Your task to perform on an android device: turn pop-ups off in chrome Image 0: 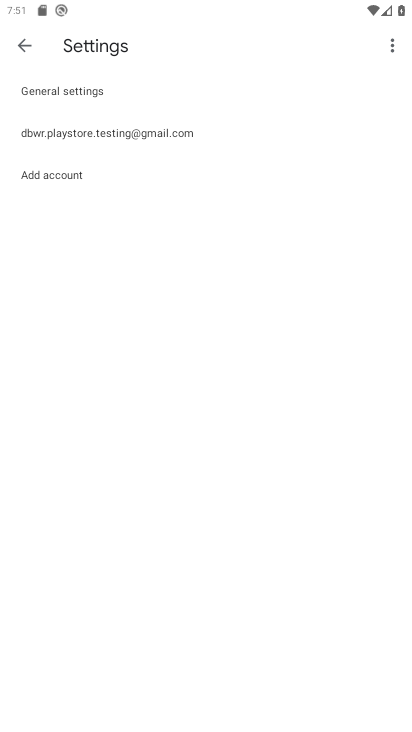
Step 0: press home button
Your task to perform on an android device: turn pop-ups off in chrome Image 1: 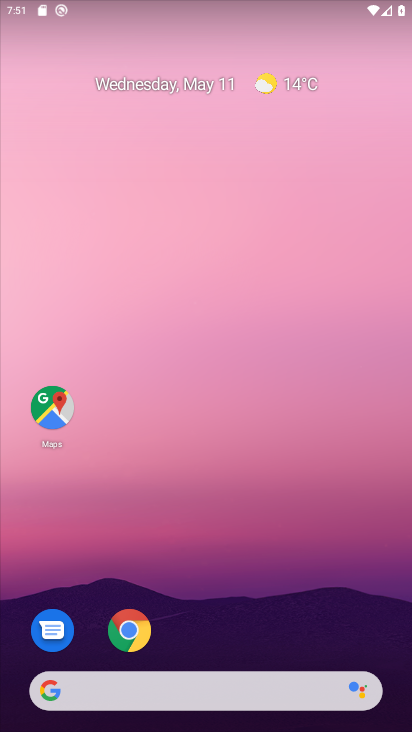
Step 1: click (134, 628)
Your task to perform on an android device: turn pop-ups off in chrome Image 2: 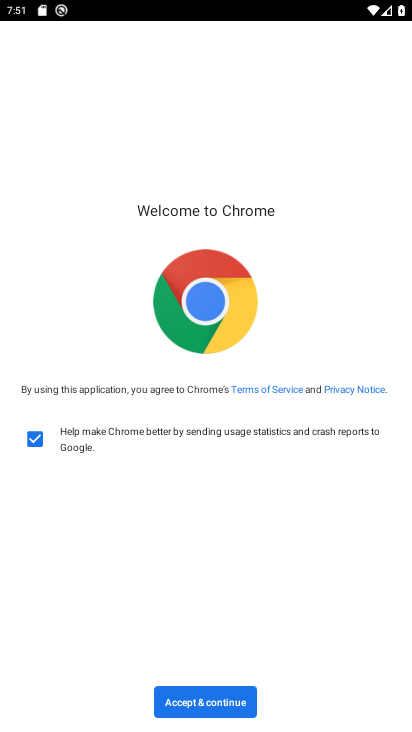
Step 2: click (226, 693)
Your task to perform on an android device: turn pop-ups off in chrome Image 3: 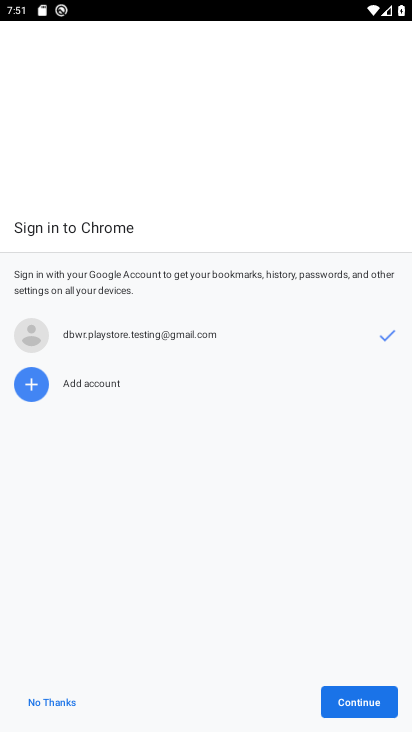
Step 3: click (375, 699)
Your task to perform on an android device: turn pop-ups off in chrome Image 4: 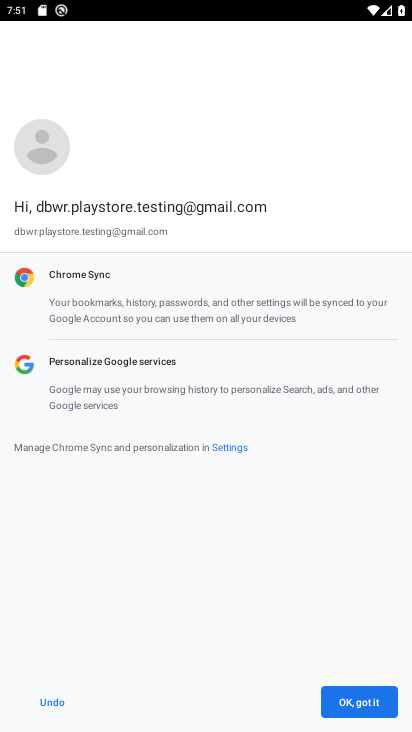
Step 4: click (53, 706)
Your task to perform on an android device: turn pop-ups off in chrome Image 5: 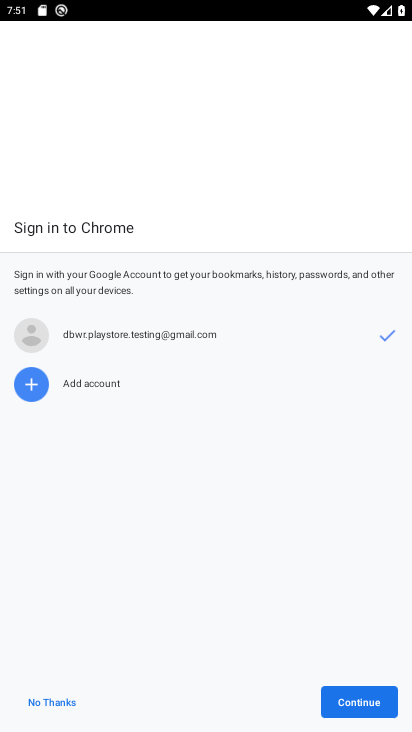
Step 5: click (55, 696)
Your task to perform on an android device: turn pop-ups off in chrome Image 6: 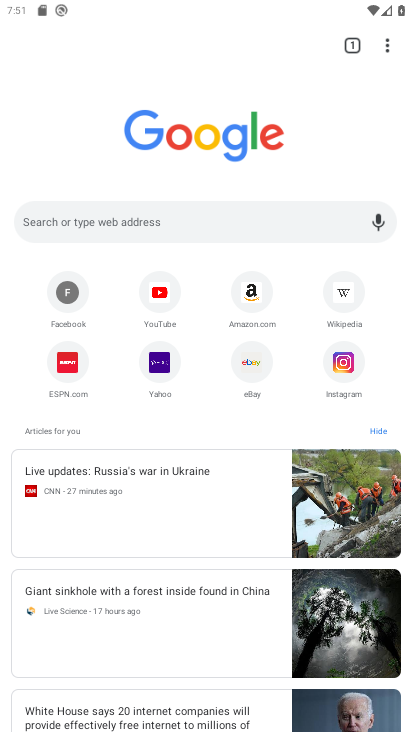
Step 6: click (387, 42)
Your task to perform on an android device: turn pop-ups off in chrome Image 7: 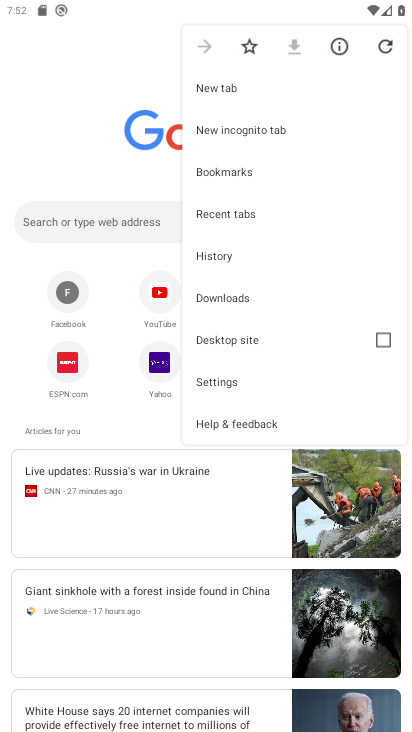
Step 7: click (244, 380)
Your task to perform on an android device: turn pop-ups off in chrome Image 8: 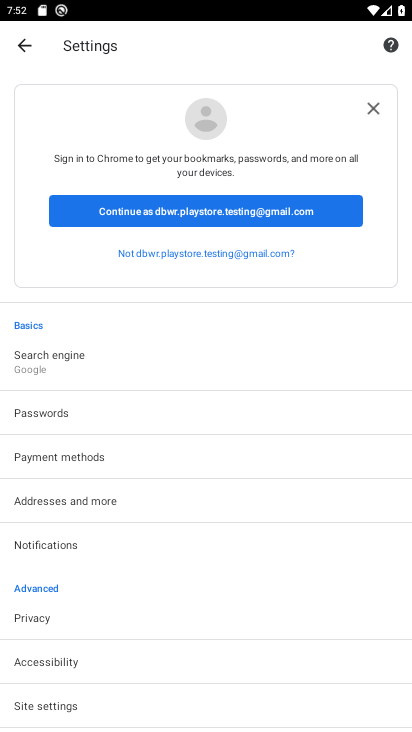
Step 8: click (138, 710)
Your task to perform on an android device: turn pop-ups off in chrome Image 9: 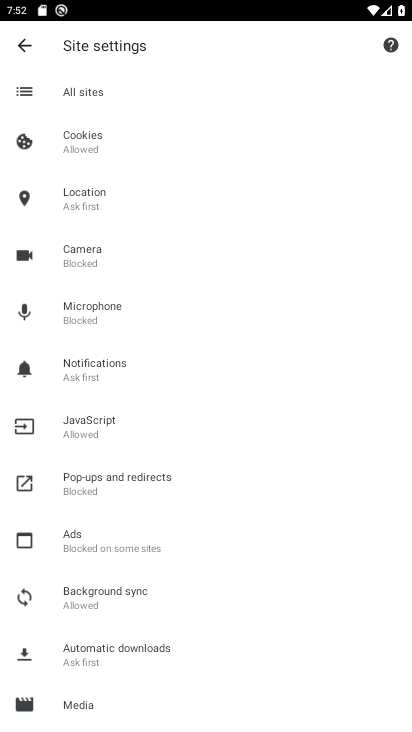
Step 9: click (141, 471)
Your task to perform on an android device: turn pop-ups off in chrome Image 10: 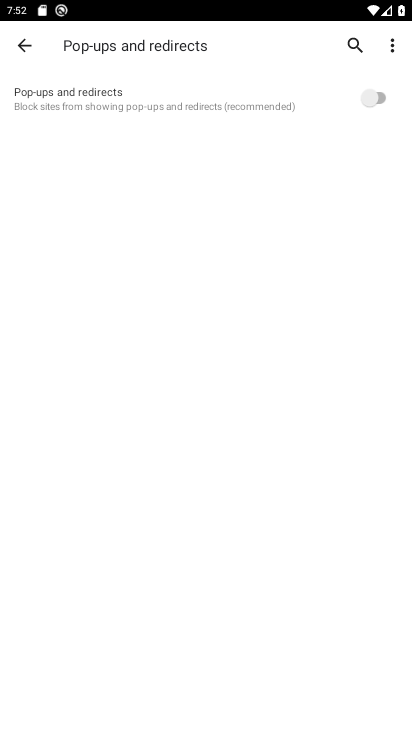
Step 10: click (375, 103)
Your task to perform on an android device: turn pop-ups off in chrome Image 11: 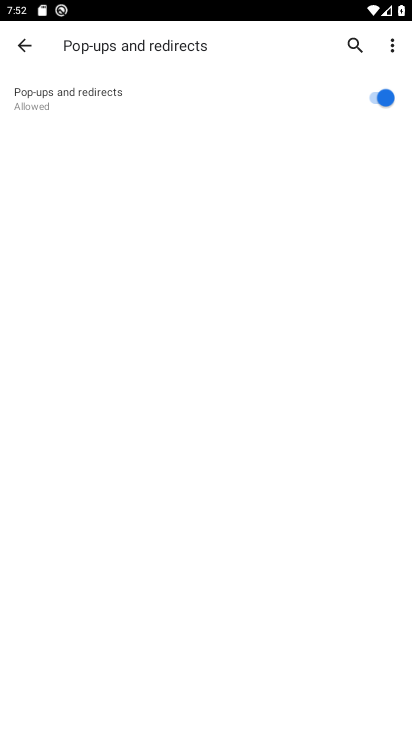
Step 11: task complete